Your task to perform on an android device: Search for seafood restaurants on Google Maps Image 0: 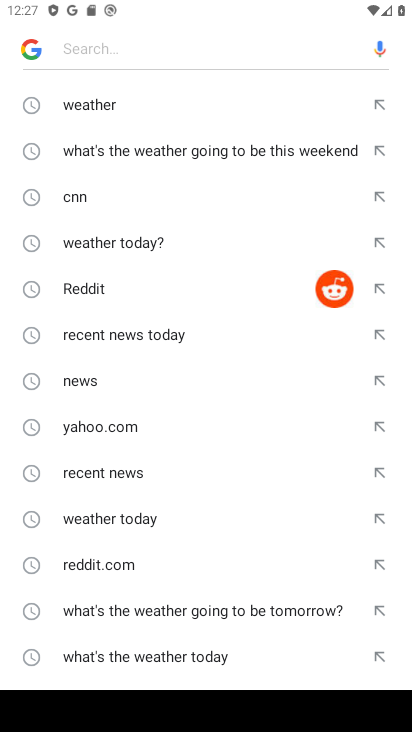
Step 0: press home button
Your task to perform on an android device: Search for seafood restaurants on Google Maps Image 1: 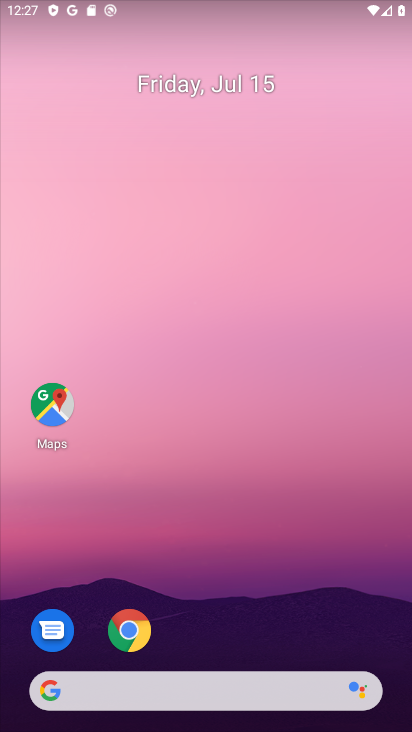
Step 1: click (38, 391)
Your task to perform on an android device: Search for seafood restaurants on Google Maps Image 2: 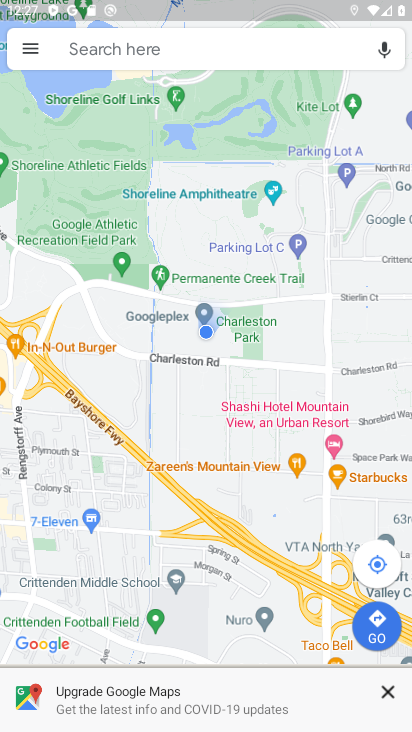
Step 2: click (231, 42)
Your task to perform on an android device: Search for seafood restaurants on Google Maps Image 3: 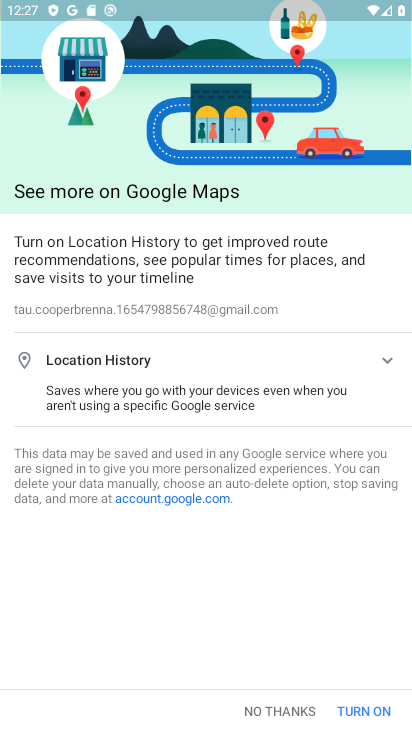
Step 3: click (308, 706)
Your task to perform on an android device: Search for seafood restaurants on Google Maps Image 4: 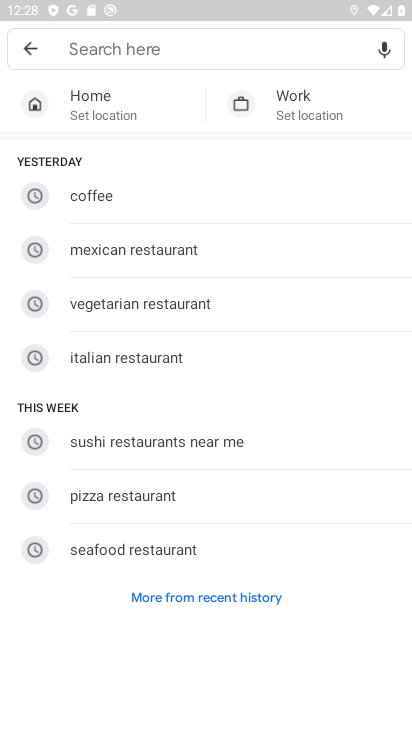
Step 4: click (181, 547)
Your task to perform on an android device: Search for seafood restaurants on Google Maps Image 5: 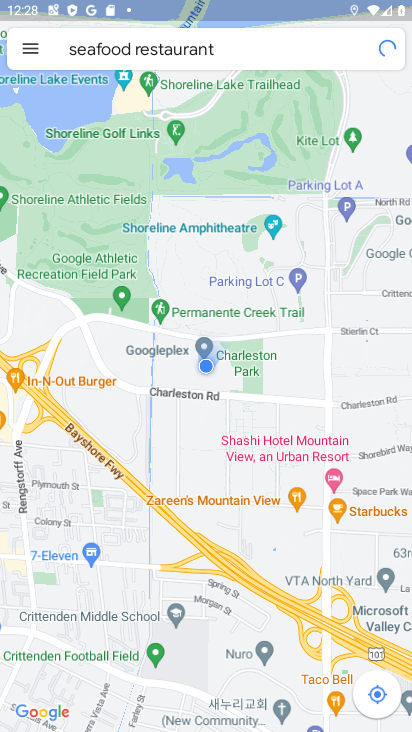
Step 5: task complete